Your task to perform on an android device: Go to sound settings Image 0: 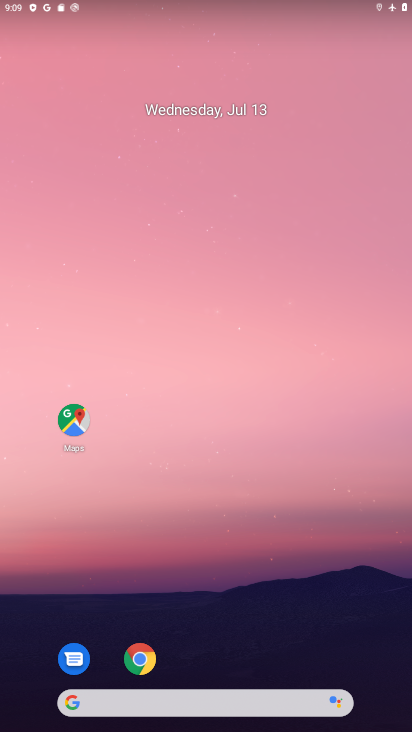
Step 0: drag from (219, 669) to (211, 223)
Your task to perform on an android device: Go to sound settings Image 1: 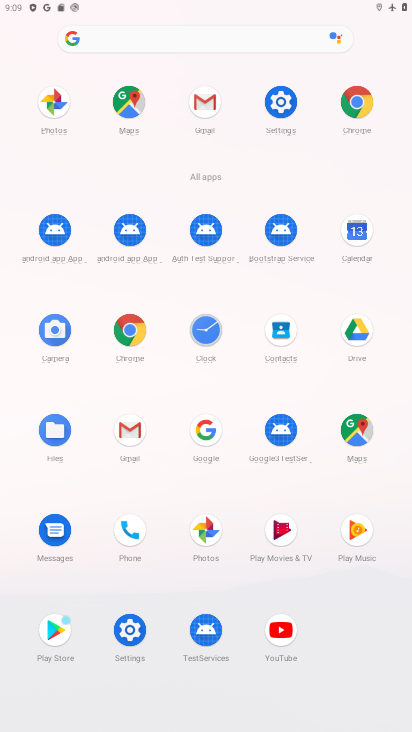
Step 1: click (280, 95)
Your task to perform on an android device: Go to sound settings Image 2: 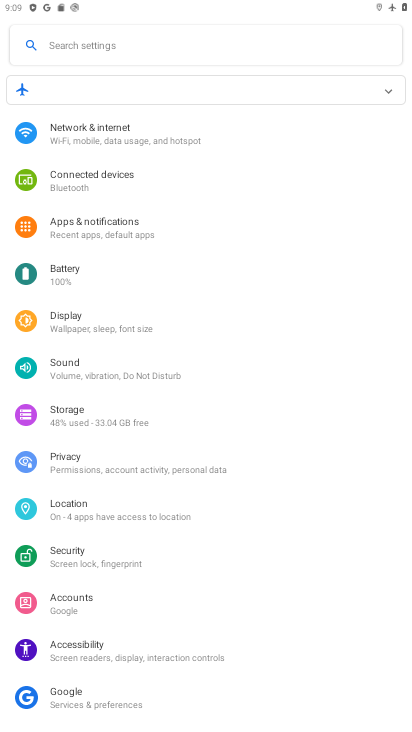
Step 2: click (83, 360)
Your task to perform on an android device: Go to sound settings Image 3: 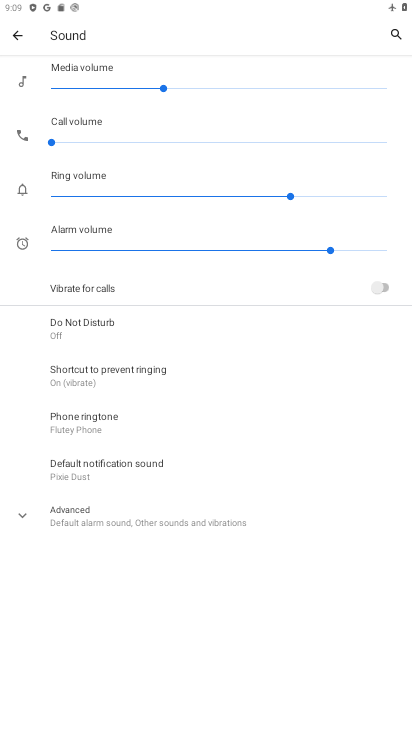
Step 3: click (83, 360)
Your task to perform on an android device: Go to sound settings Image 4: 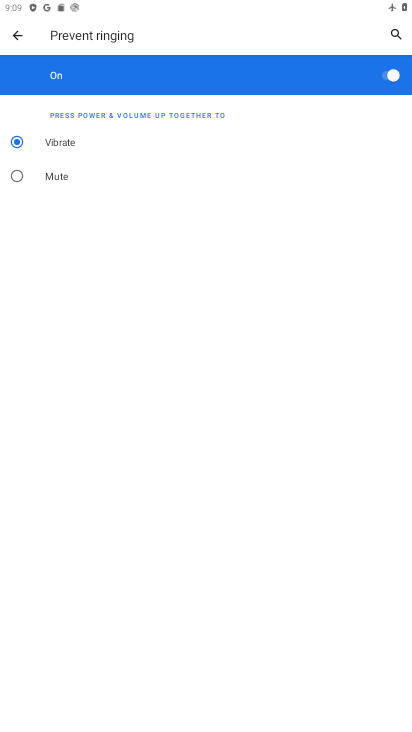
Step 4: click (30, 510)
Your task to perform on an android device: Go to sound settings Image 5: 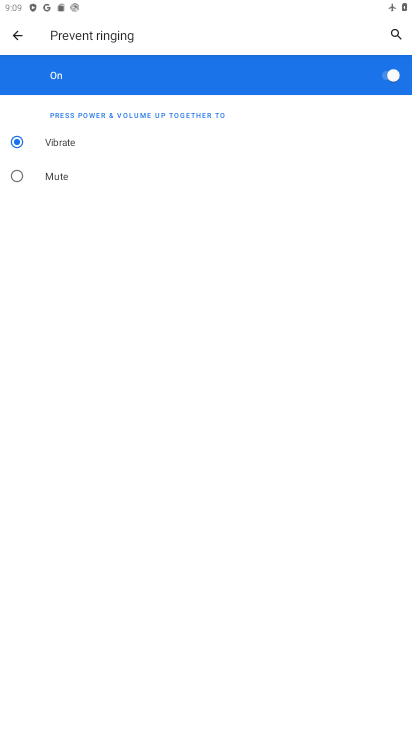
Step 5: click (15, 35)
Your task to perform on an android device: Go to sound settings Image 6: 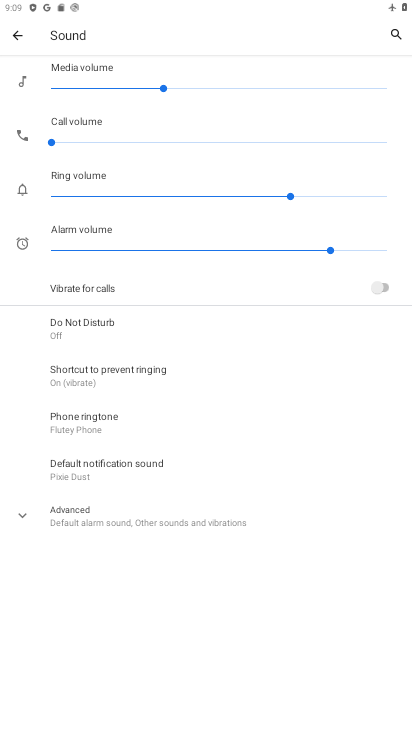
Step 6: click (9, 484)
Your task to perform on an android device: Go to sound settings Image 7: 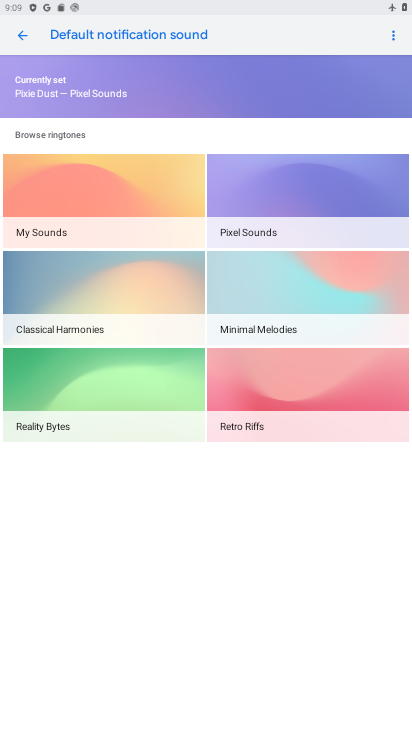
Step 7: task complete